Your task to perform on an android device: set the timer Image 0: 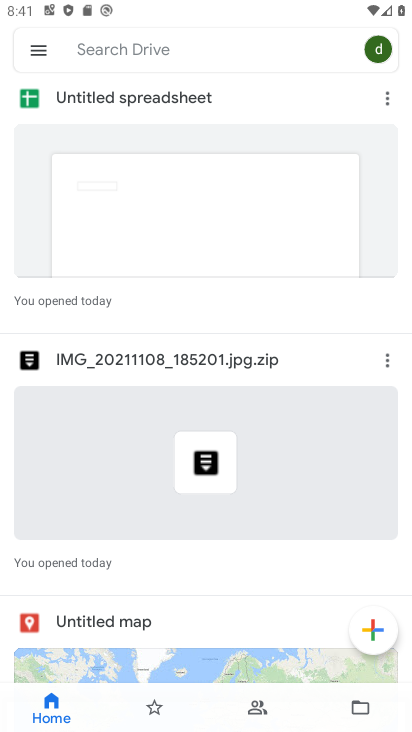
Step 0: press home button
Your task to perform on an android device: set the timer Image 1: 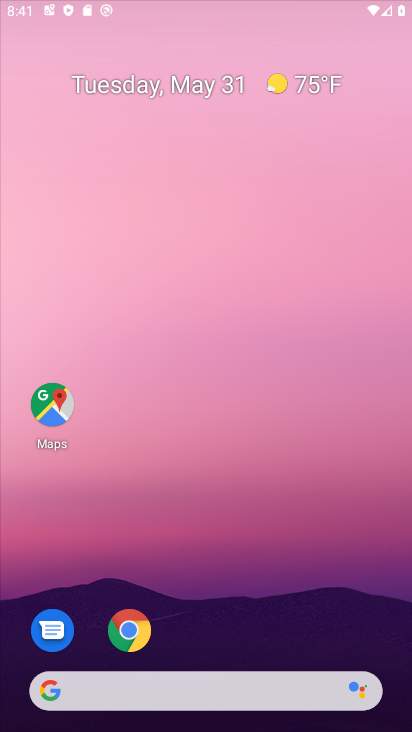
Step 1: drag from (240, 605) to (316, 228)
Your task to perform on an android device: set the timer Image 2: 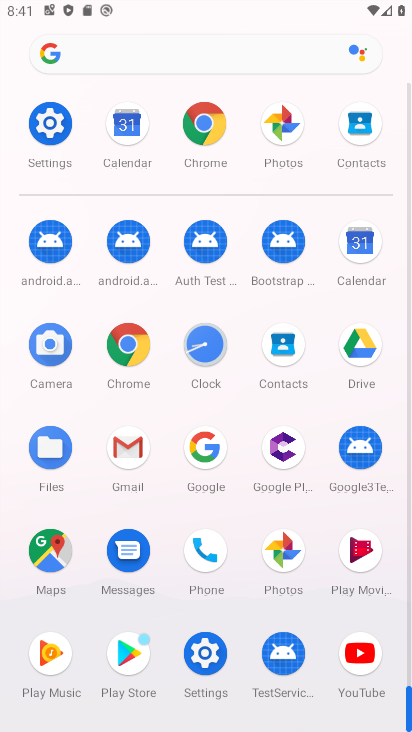
Step 2: click (206, 363)
Your task to perform on an android device: set the timer Image 3: 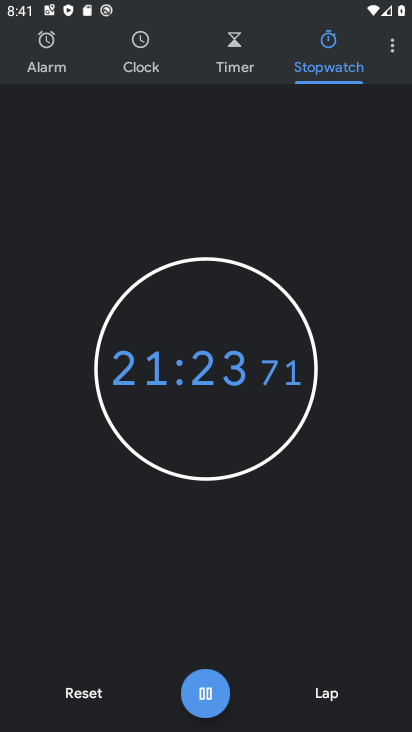
Step 3: click (234, 53)
Your task to perform on an android device: set the timer Image 4: 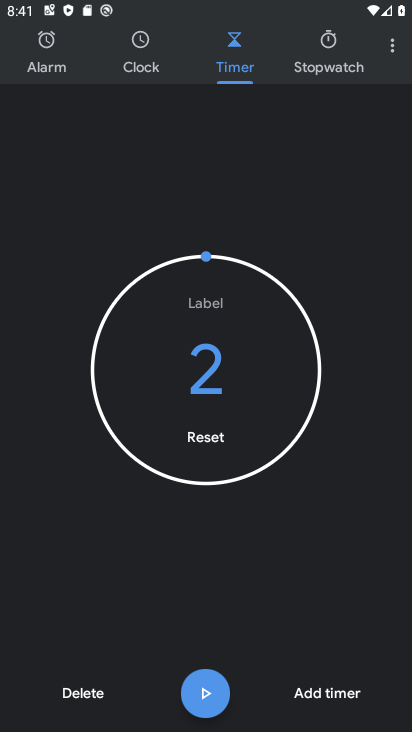
Step 4: click (196, 705)
Your task to perform on an android device: set the timer Image 5: 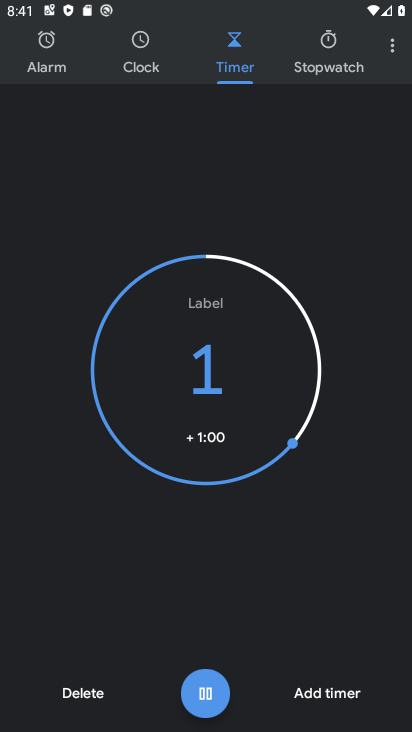
Step 5: task complete